Your task to perform on an android device: delete browsing data in the chrome app Image 0: 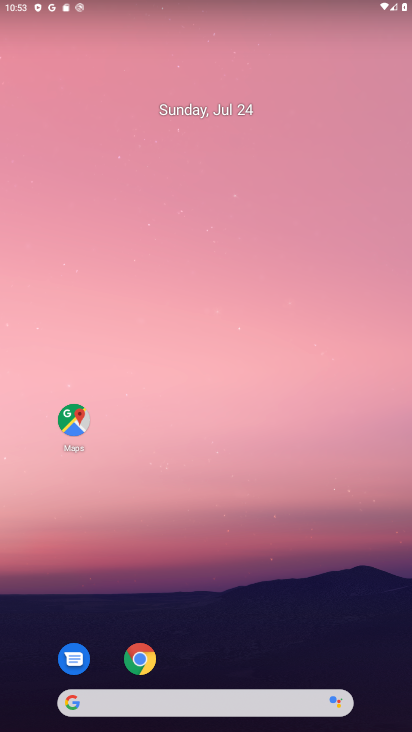
Step 0: click (135, 665)
Your task to perform on an android device: delete browsing data in the chrome app Image 1: 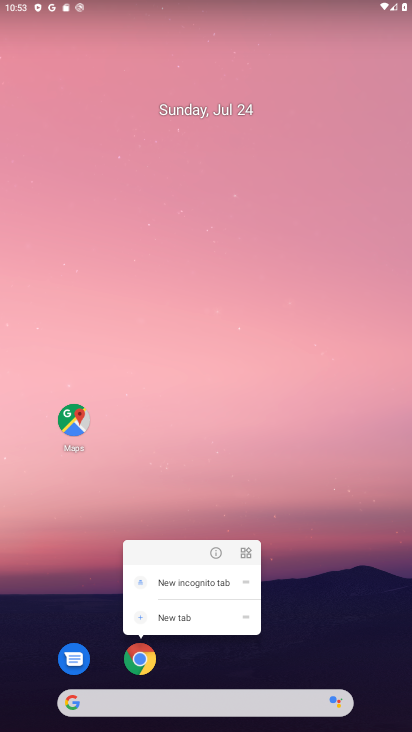
Step 1: click (135, 665)
Your task to perform on an android device: delete browsing data in the chrome app Image 2: 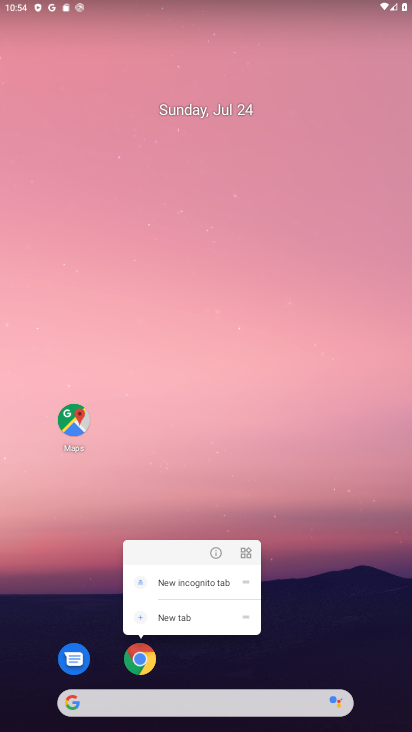
Step 2: click (135, 665)
Your task to perform on an android device: delete browsing data in the chrome app Image 3: 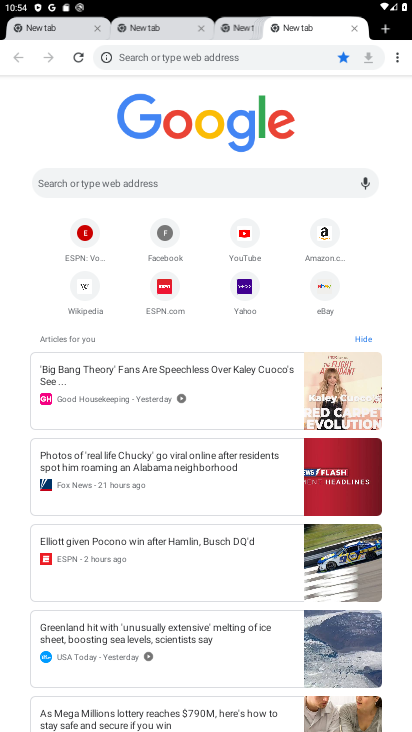
Step 3: click (401, 65)
Your task to perform on an android device: delete browsing data in the chrome app Image 4: 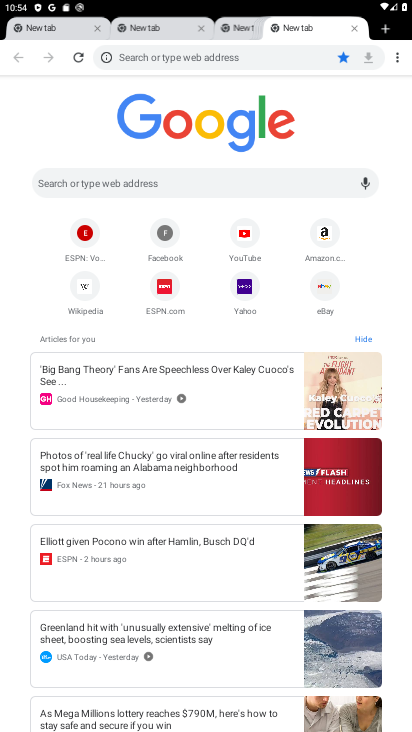
Step 4: click (394, 65)
Your task to perform on an android device: delete browsing data in the chrome app Image 5: 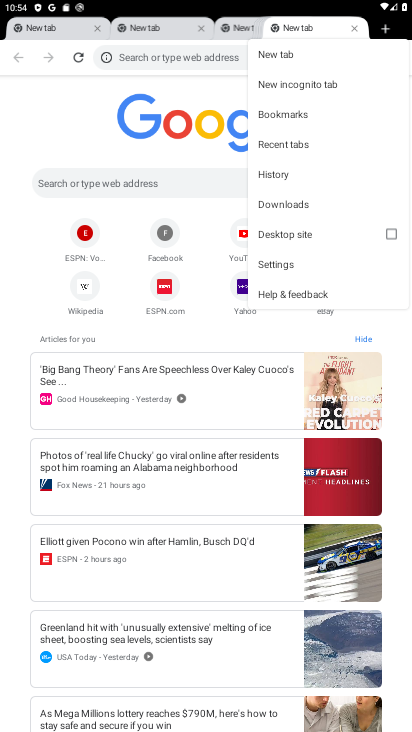
Step 5: click (290, 268)
Your task to perform on an android device: delete browsing data in the chrome app Image 6: 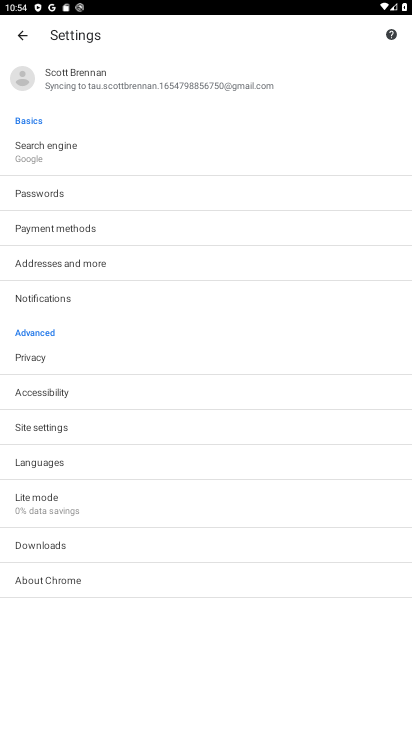
Step 6: click (66, 358)
Your task to perform on an android device: delete browsing data in the chrome app Image 7: 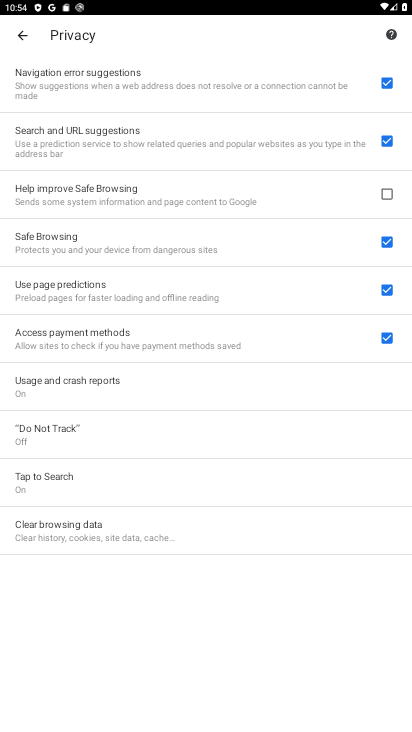
Step 7: click (118, 550)
Your task to perform on an android device: delete browsing data in the chrome app Image 8: 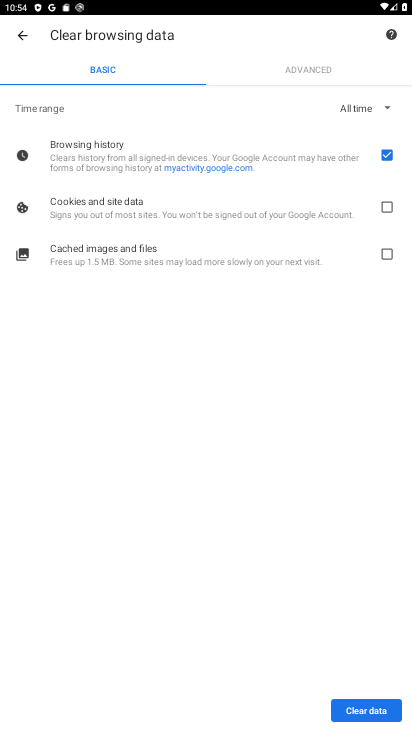
Step 8: click (386, 706)
Your task to perform on an android device: delete browsing data in the chrome app Image 9: 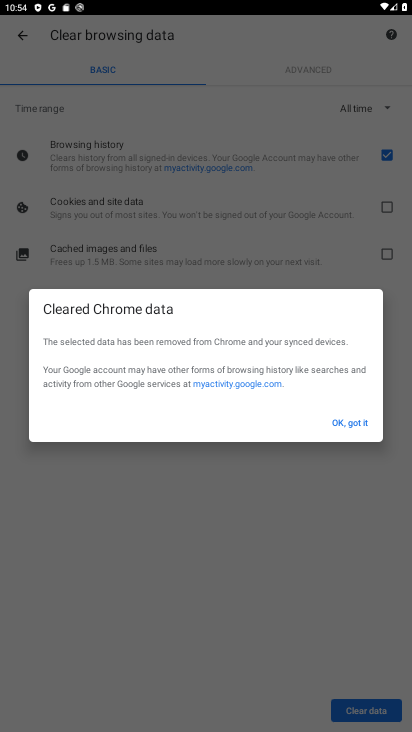
Step 9: click (376, 423)
Your task to perform on an android device: delete browsing data in the chrome app Image 10: 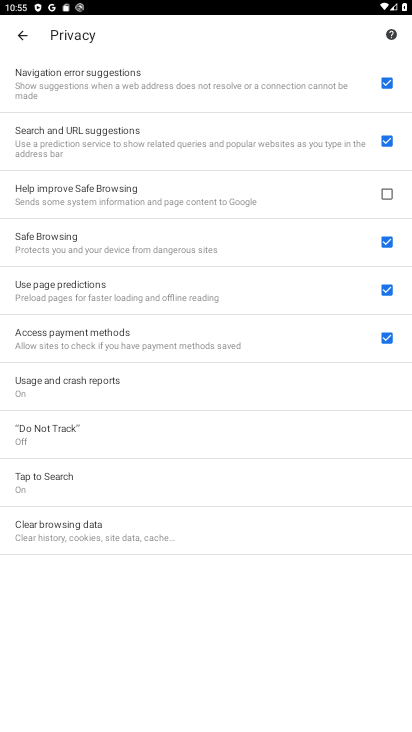
Step 10: task complete